Your task to perform on an android device: Open calendar and show me the first week of next month Image 0: 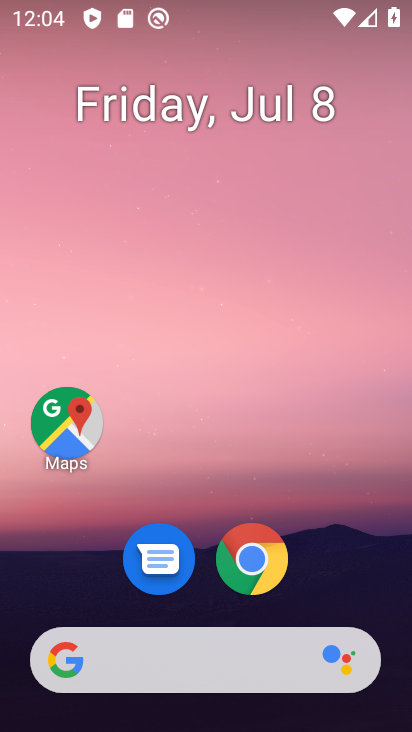
Step 0: drag from (182, 605) to (96, 86)
Your task to perform on an android device: Open calendar and show me the first week of next month Image 1: 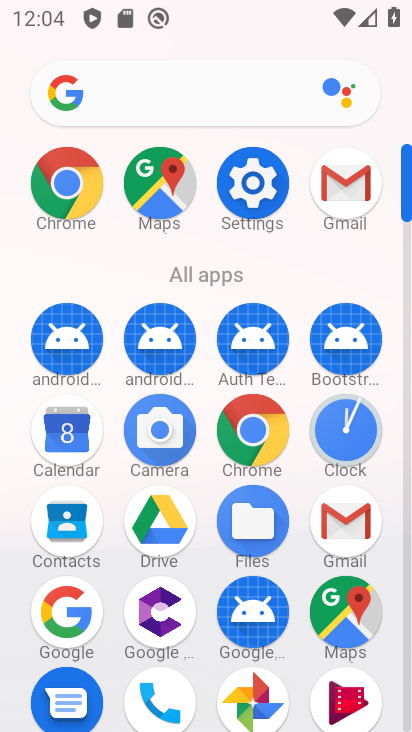
Step 1: click (65, 457)
Your task to perform on an android device: Open calendar and show me the first week of next month Image 2: 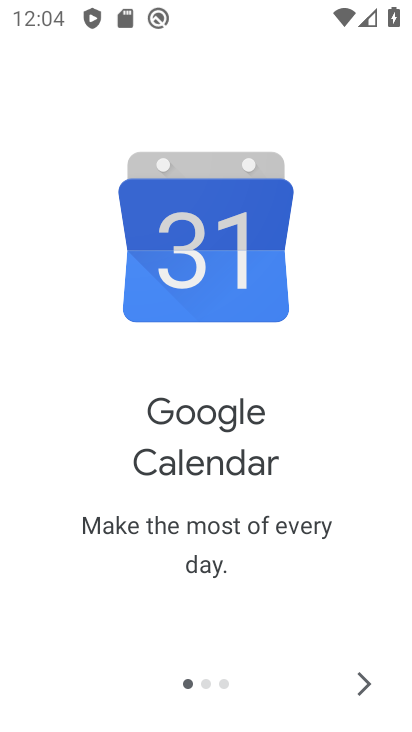
Step 2: drag from (98, 527) to (132, 702)
Your task to perform on an android device: Open calendar and show me the first week of next month Image 3: 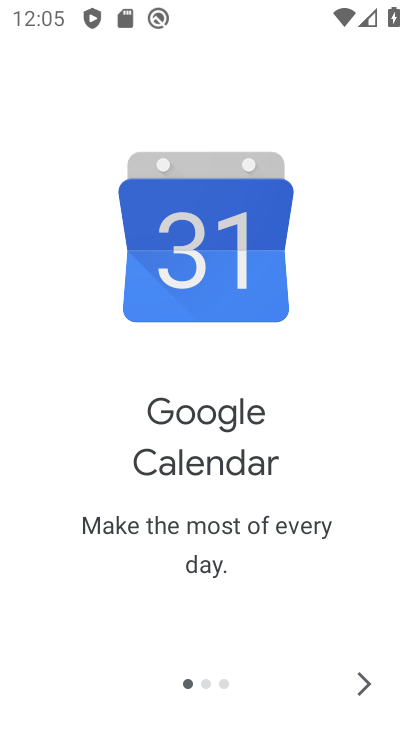
Step 3: click (363, 681)
Your task to perform on an android device: Open calendar and show me the first week of next month Image 4: 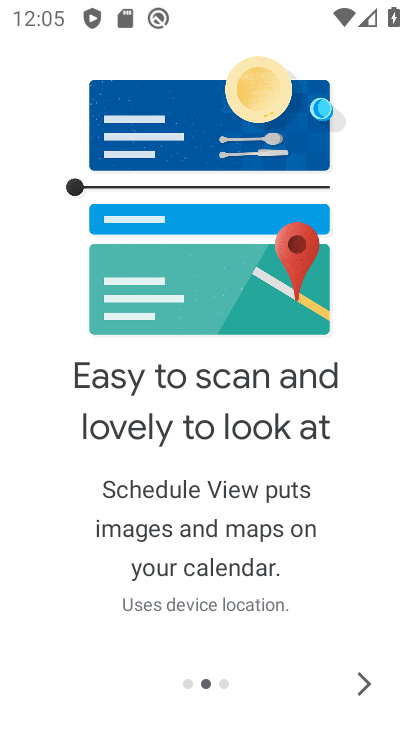
Step 4: click (362, 674)
Your task to perform on an android device: Open calendar and show me the first week of next month Image 5: 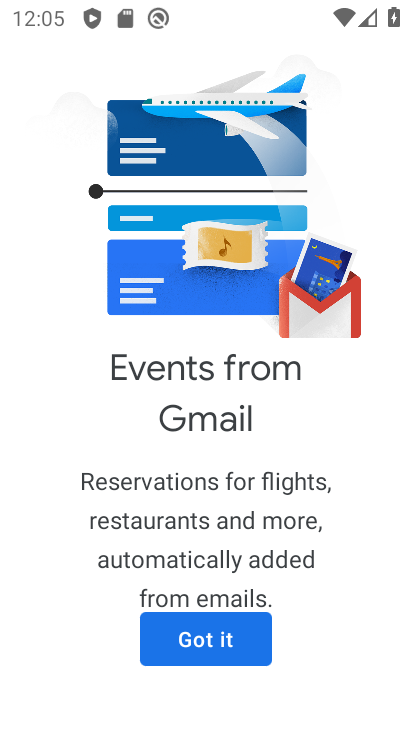
Step 5: click (253, 648)
Your task to perform on an android device: Open calendar and show me the first week of next month Image 6: 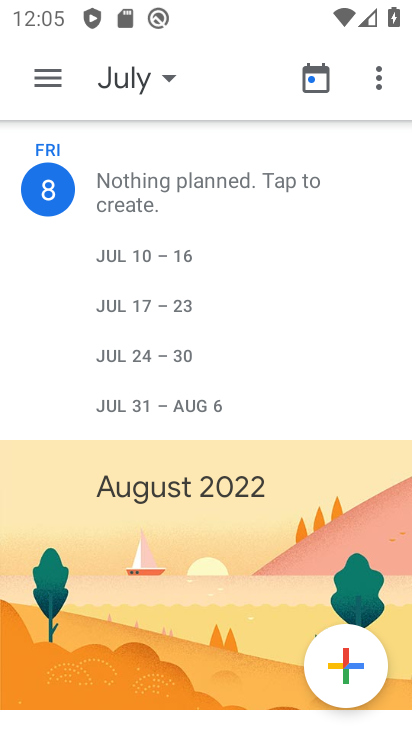
Step 6: click (52, 86)
Your task to perform on an android device: Open calendar and show me the first week of next month Image 7: 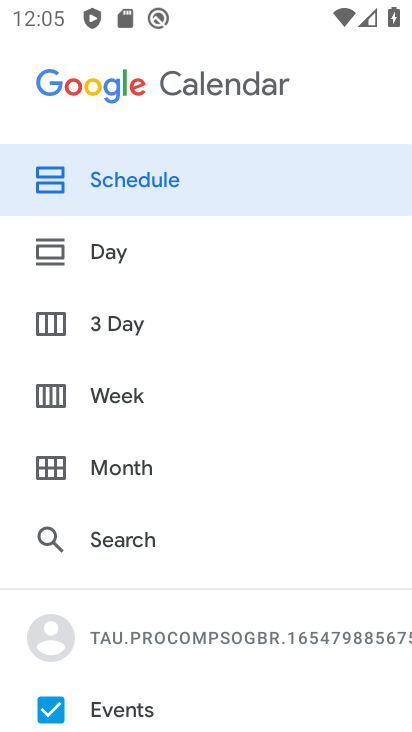
Step 7: click (132, 384)
Your task to perform on an android device: Open calendar and show me the first week of next month Image 8: 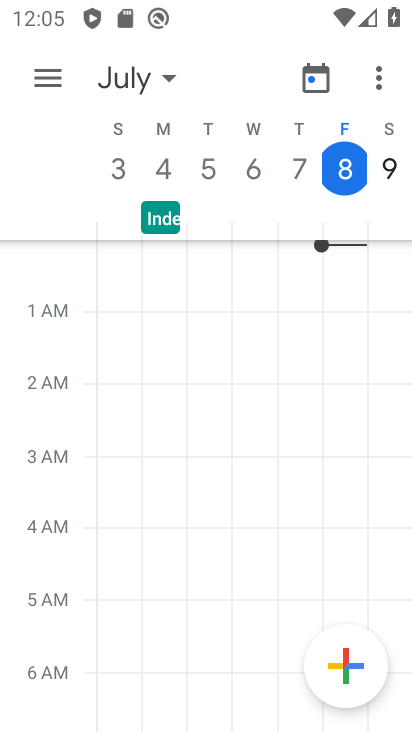
Step 8: task complete